Your task to perform on an android device: Open Google Maps and go to "Timeline" Image 0: 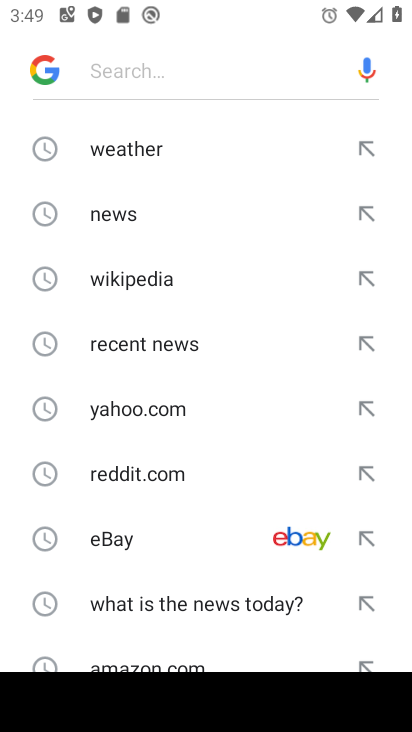
Step 0: press home button
Your task to perform on an android device: Open Google Maps and go to "Timeline" Image 1: 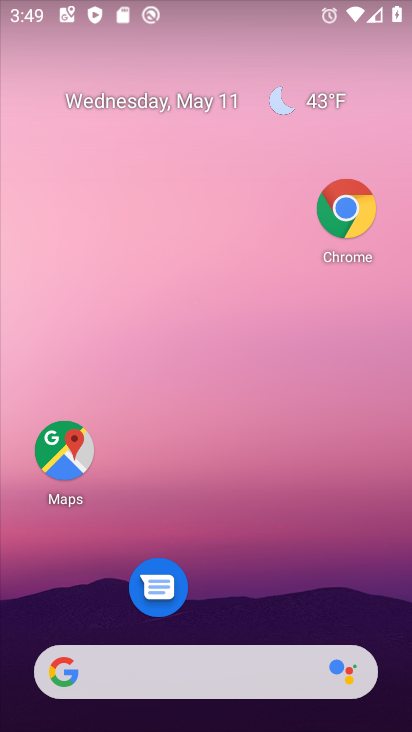
Step 1: click (57, 447)
Your task to perform on an android device: Open Google Maps and go to "Timeline" Image 2: 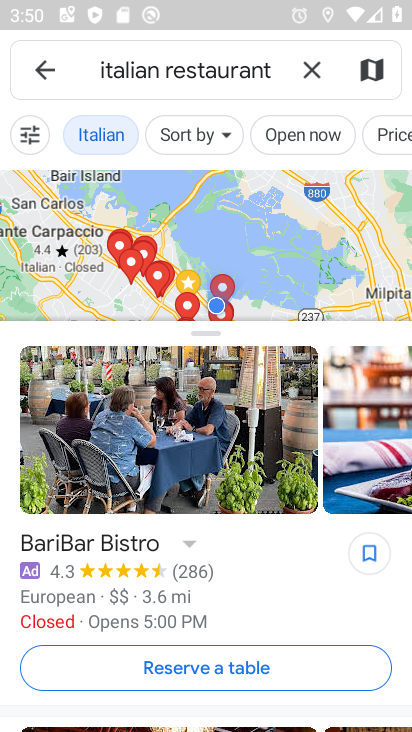
Step 2: click (255, 71)
Your task to perform on an android device: Open Google Maps and go to "Timeline" Image 3: 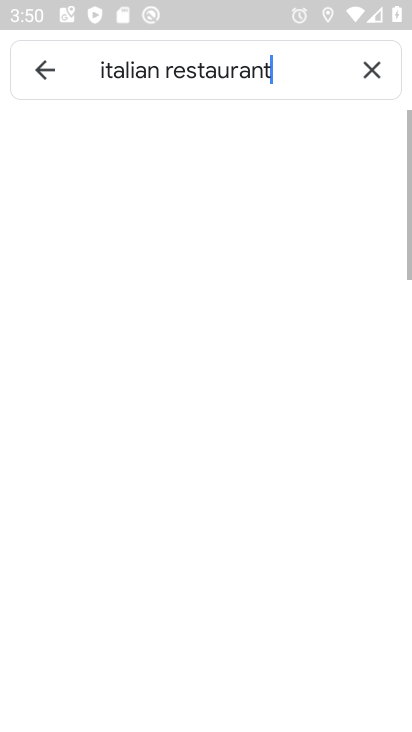
Step 3: click (311, 69)
Your task to perform on an android device: Open Google Maps and go to "Timeline" Image 4: 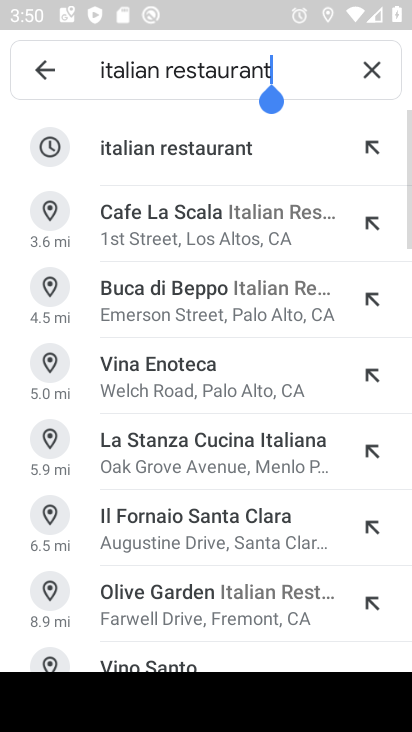
Step 4: click (368, 64)
Your task to perform on an android device: Open Google Maps and go to "Timeline" Image 5: 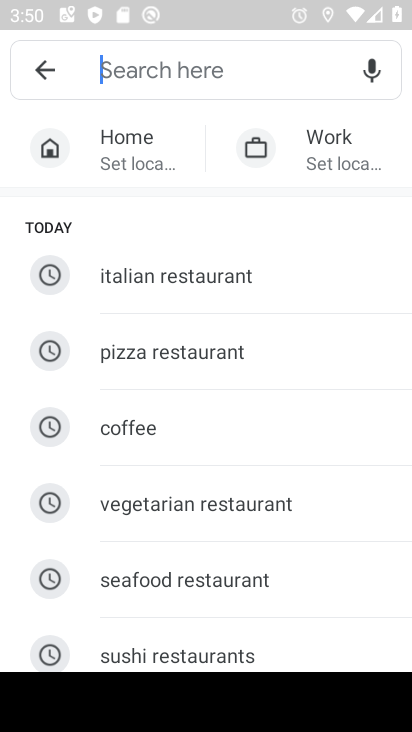
Step 5: type "time line"
Your task to perform on an android device: Open Google Maps and go to "Timeline" Image 6: 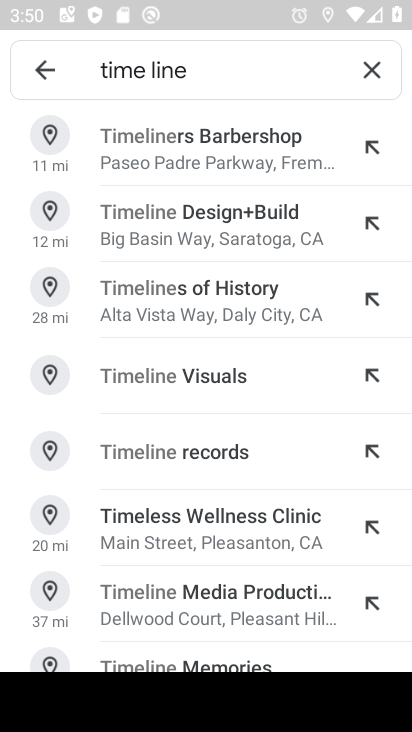
Step 6: drag from (184, 477) to (185, 167)
Your task to perform on an android device: Open Google Maps and go to "Timeline" Image 7: 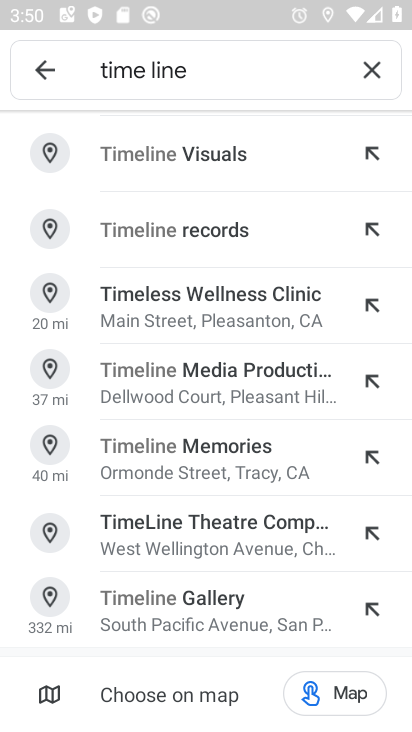
Step 7: drag from (200, 221) to (250, 623)
Your task to perform on an android device: Open Google Maps and go to "Timeline" Image 8: 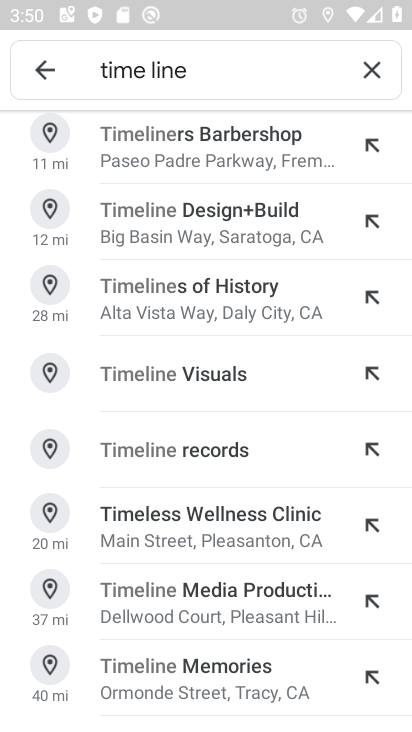
Step 8: click (42, 64)
Your task to perform on an android device: Open Google Maps and go to "Timeline" Image 9: 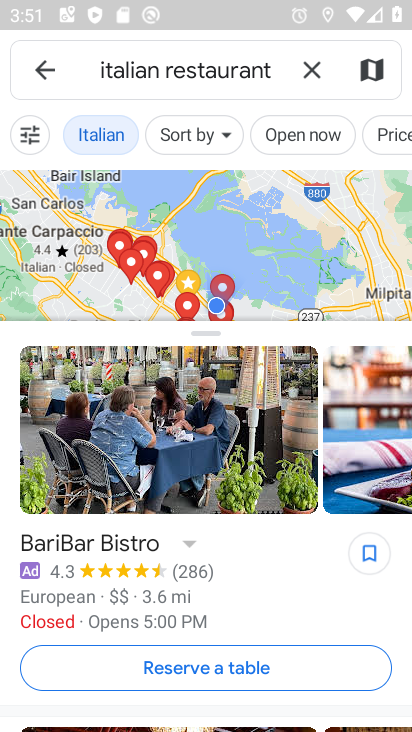
Step 9: click (40, 62)
Your task to perform on an android device: Open Google Maps and go to "Timeline" Image 10: 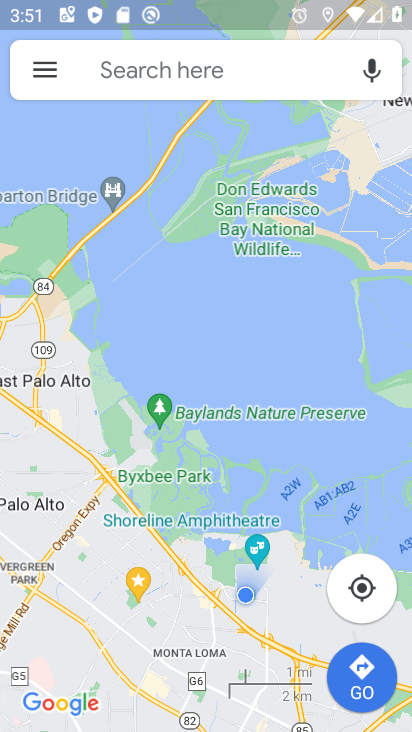
Step 10: click (40, 62)
Your task to perform on an android device: Open Google Maps and go to "Timeline" Image 11: 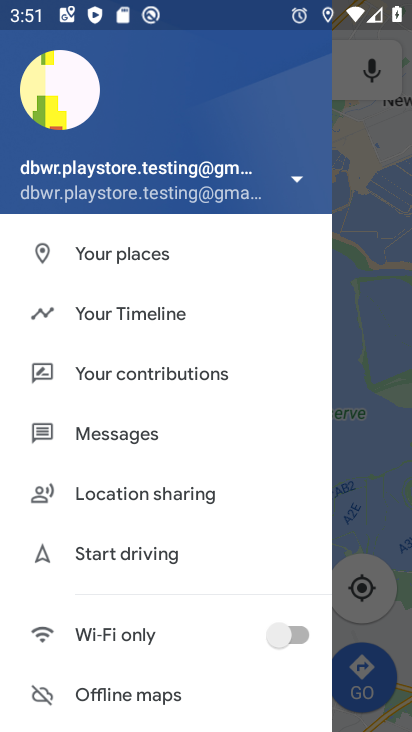
Step 11: click (141, 308)
Your task to perform on an android device: Open Google Maps and go to "Timeline" Image 12: 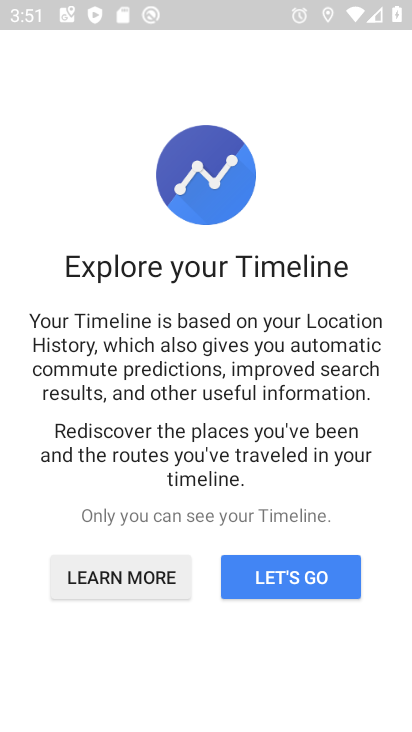
Step 12: click (268, 602)
Your task to perform on an android device: Open Google Maps and go to "Timeline" Image 13: 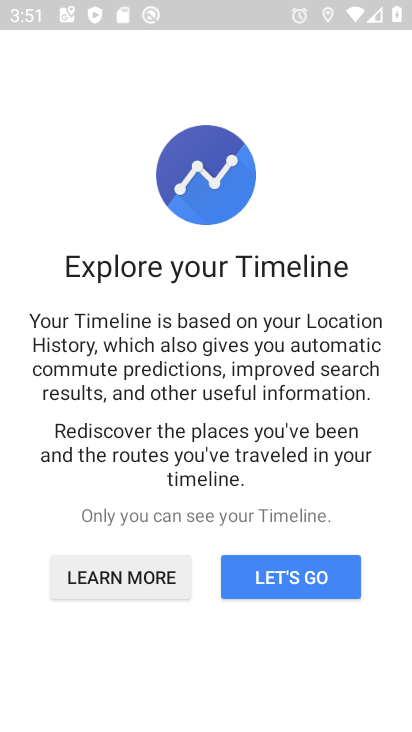
Step 13: click (280, 570)
Your task to perform on an android device: Open Google Maps and go to "Timeline" Image 14: 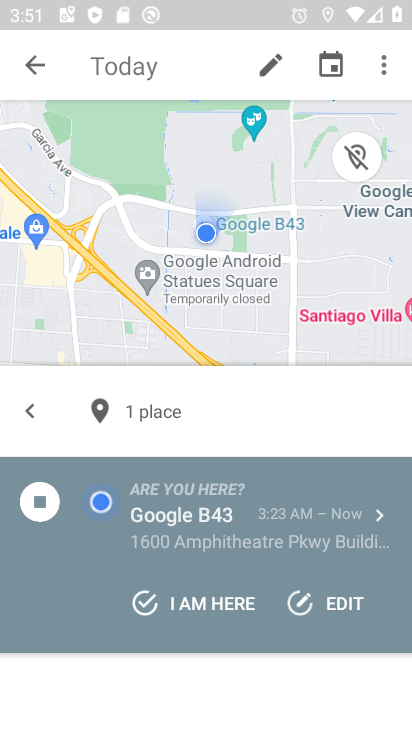
Step 14: task complete